Your task to perform on an android device: Toggle the flashlight Image 0: 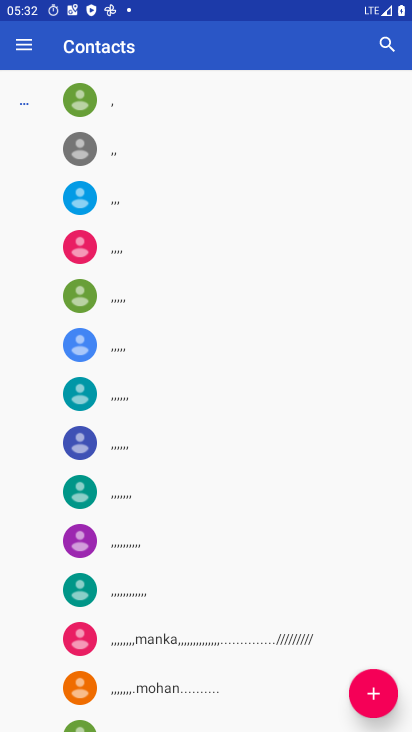
Step 0: press home button
Your task to perform on an android device: Toggle the flashlight Image 1: 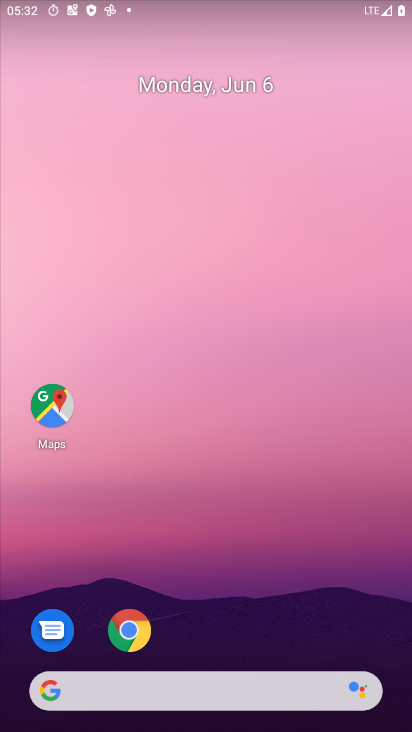
Step 1: task complete